Your task to perform on an android device: uninstall "Spotify: Music and Podcasts" Image 0: 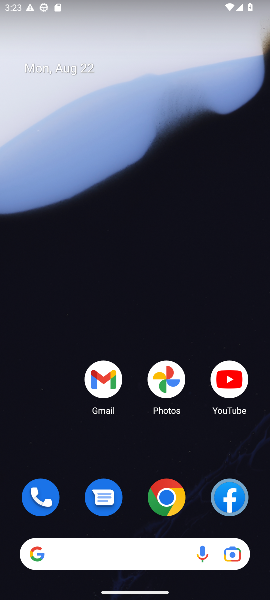
Step 0: drag from (146, 453) to (150, 102)
Your task to perform on an android device: uninstall "Spotify: Music and Podcasts" Image 1: 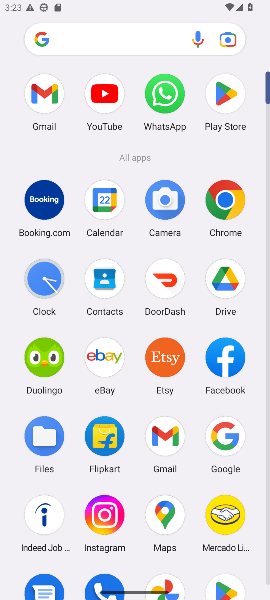
Step 1: click (227, 89)
Your task to perform on an android device: uninstall "Spotify: Music and Podcasts" Image 2: 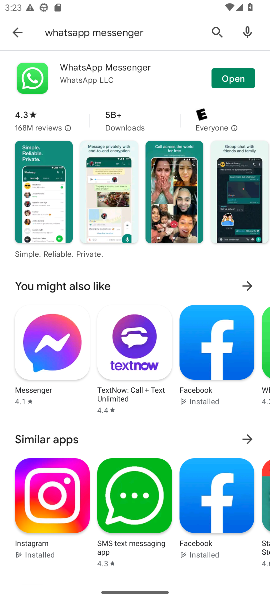
Step 2: click (209, 36)
Your task to perform on an android device: uninstall "Spotify: Music and Podcasts" Image 3: 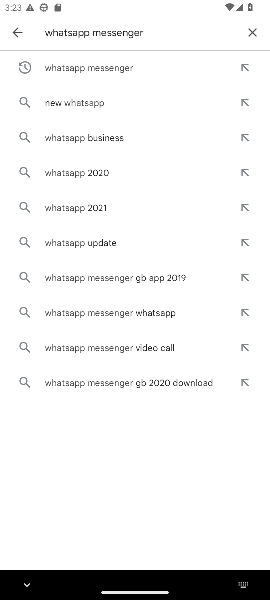
Step 3: click (248, 29)
Your task to perform on an android device: uninstall "Spotify: Music and Podcasts" Image 4: 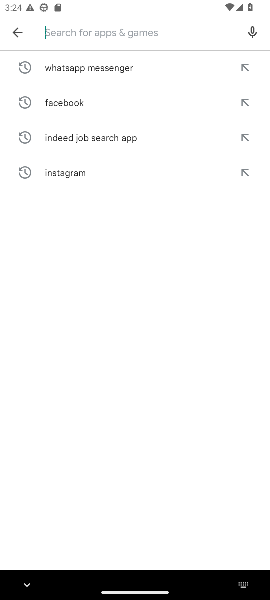
Step 4: type "Spotify: Music and Podcasts"
Your task to perform on an android device: uninstall "Spotify: Music and Podcasts" Image 5: 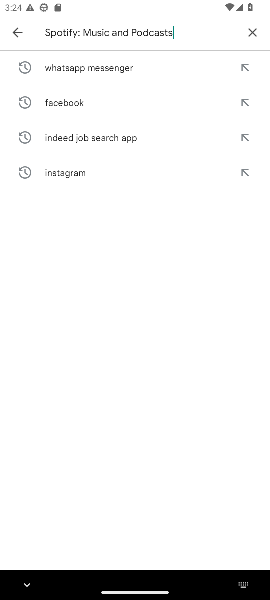
Step 5: type ""
Your task to perform on an android device: uninstall "Spotify: Music and Podcasts" Image 6: 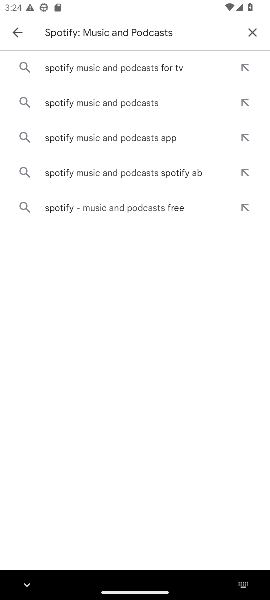
Step 6: click (51, 58)
Your task to perform on an android device: uninstall "Spotify: Music and Podcasts" Image 7: 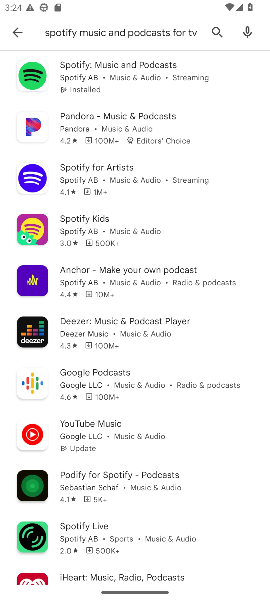
Step 7: click (79, 74)
Your task to perform on an android device: uninstall "Spotify: Music and Podcasts" Image 8: 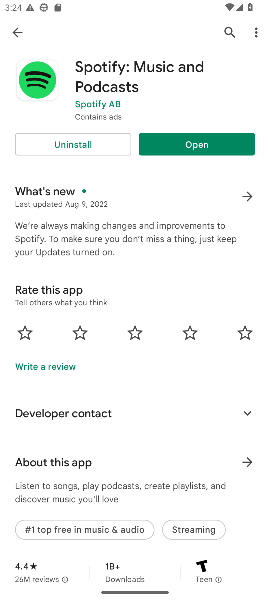
Step 8: click (82, 149)
Your task to perform on an android device: uninstall "Spotify: Music and Podcasts" Image 9: 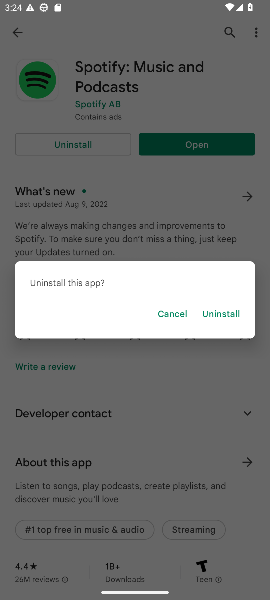
Step 9: click (213, 314)
Your task to perform on an android device: uninstall "Spotify: Music and Podcasts" Image 10: 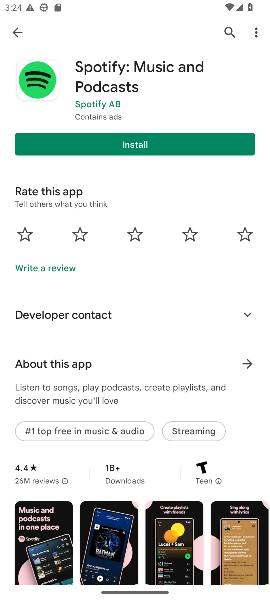
Step 10: task complete